Your task to perform on an android device: change notifications settings Image 0: 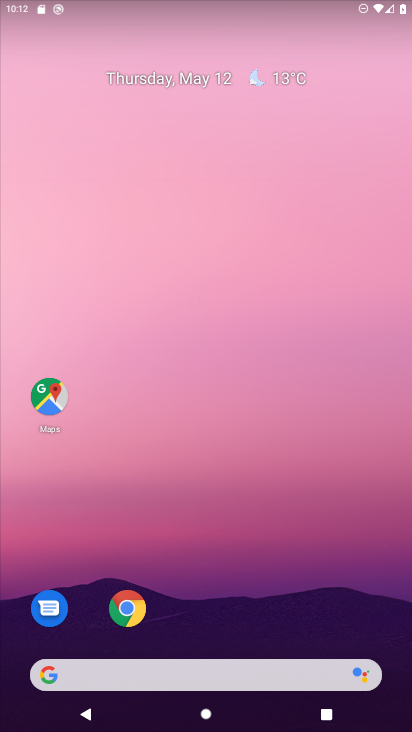
Step 0: drag from (225, 594) to (238, 162)
Your task to perform on an android device: change notifications settings Image 1: 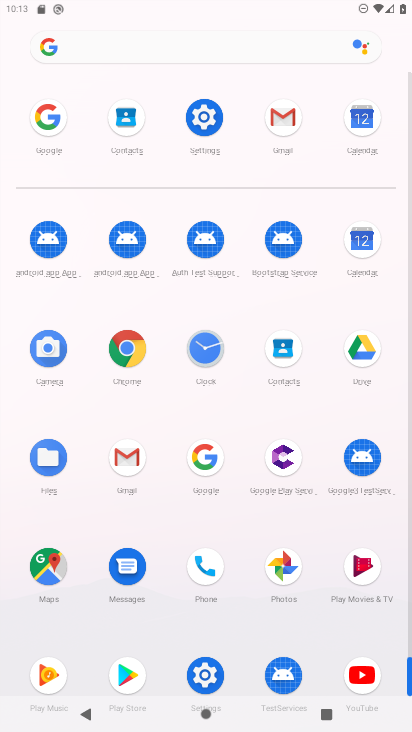
Step 1: click (202, 123)
Your task to perform on an android device: change notifications settings Image 2: 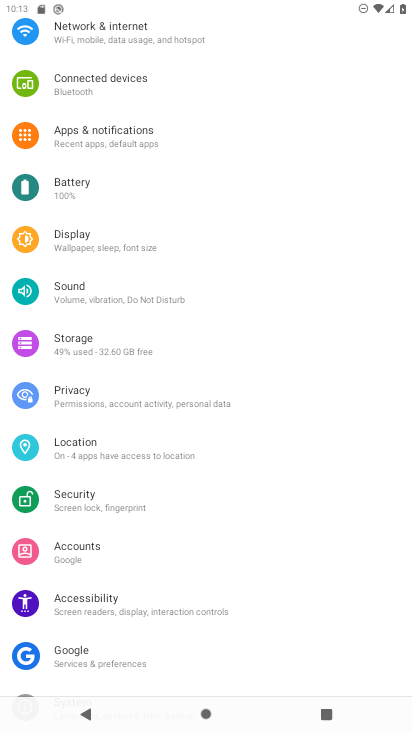
Step 2: click (122, 141)
Your task to perform on an android device: change notifications settings Image 3: 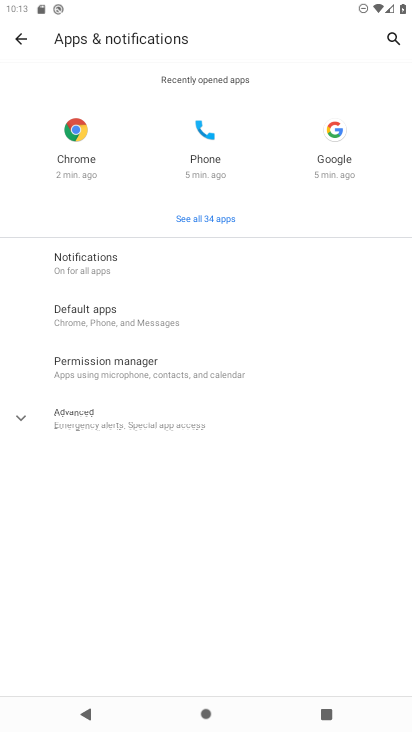
Step 3: click (111, 260)
Your task to perform on an android device: change notifications settings Image 4: 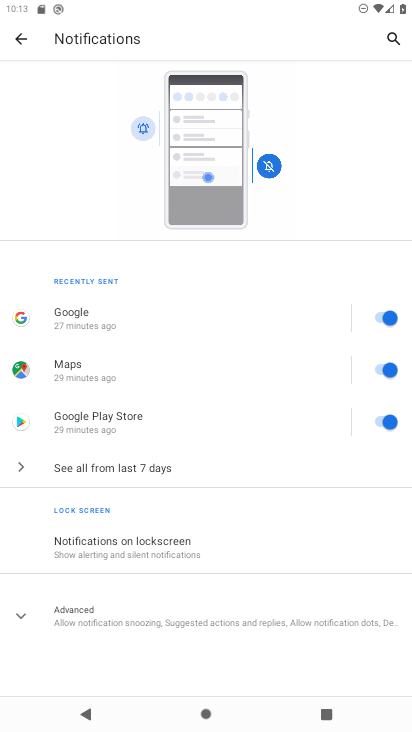
Step 4: click (172, 622)
Your task to perform on an android device: change notifications settings Image 5: 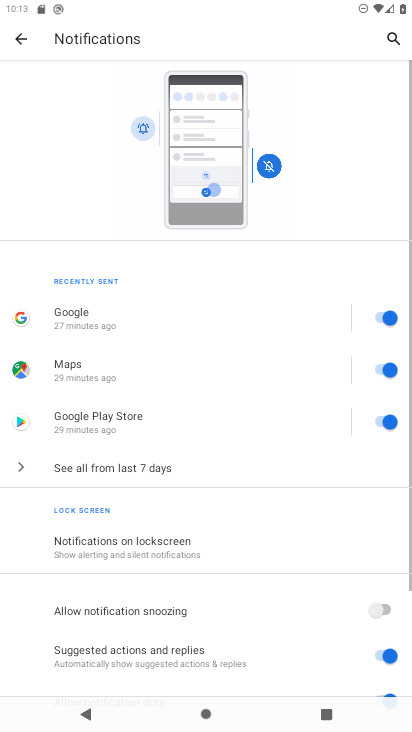
Step 5: drag from (255, 545) to (269, 182)
Your task to perform on an android device: change notifications settings Image 6: 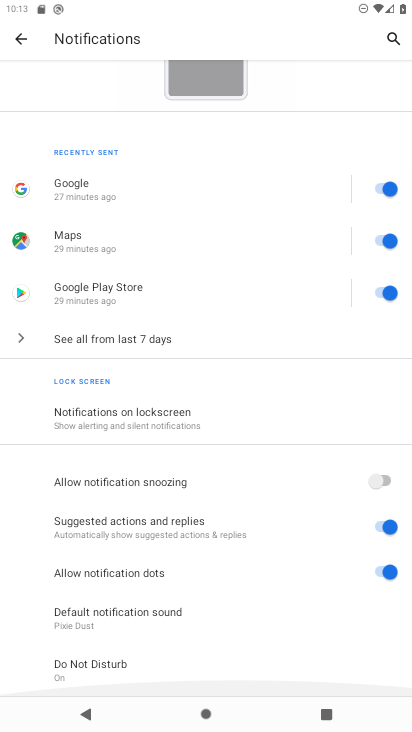
Step 6: click (380, 478)
Your task to perform on an android device: change notifications settings Image 7: 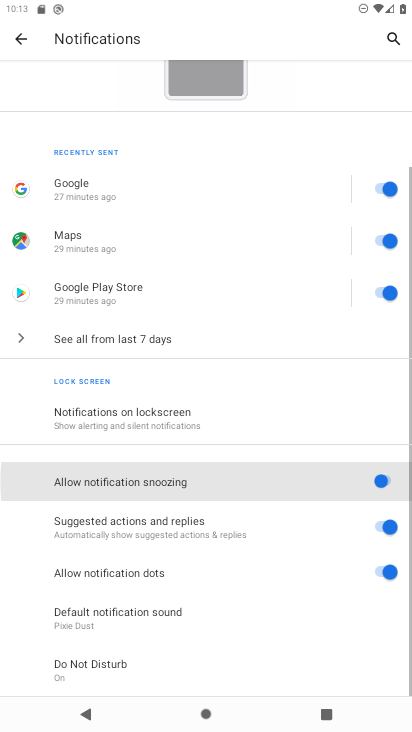
Step 7: click (387, 529)
Your task to perform on an android device: change notifications settings Image 8: 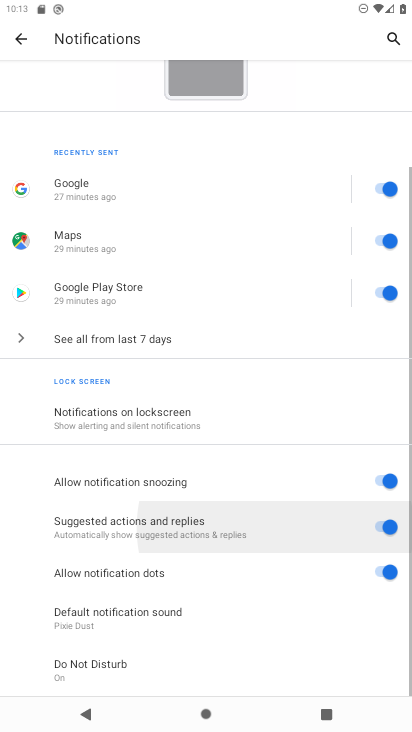
Step 8: click (393, 573)
Your task to perform on an android device: change notifications settings Image 9: 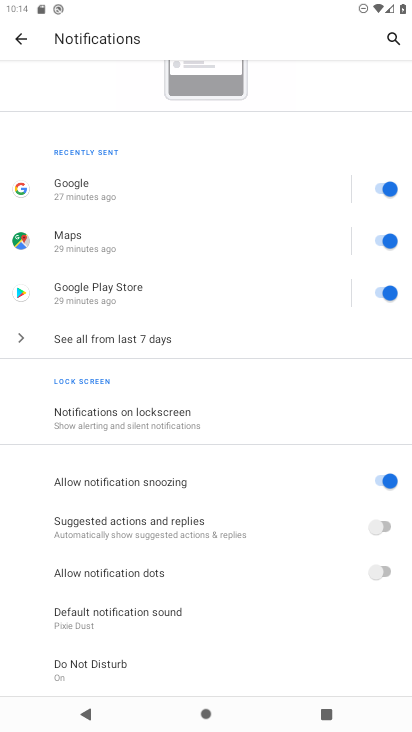
Step 9: task complete